Your task to perform on an android device: Open calendar and show me the fourth week of next month Image 0: 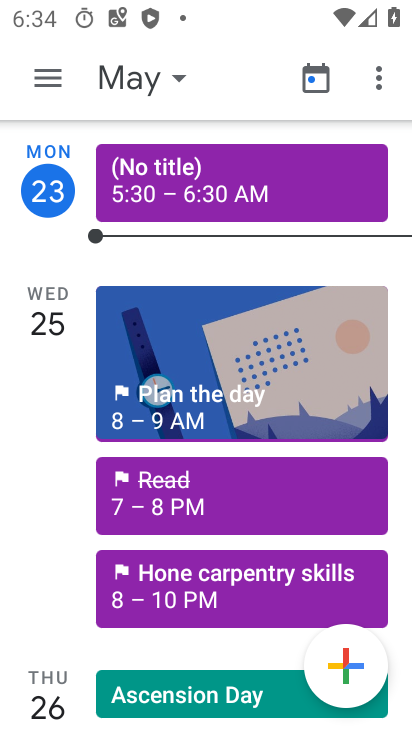
Step 0: press home button
Your task to perform on an android device: Open calendar and show me the fourth week of next month Image 1: 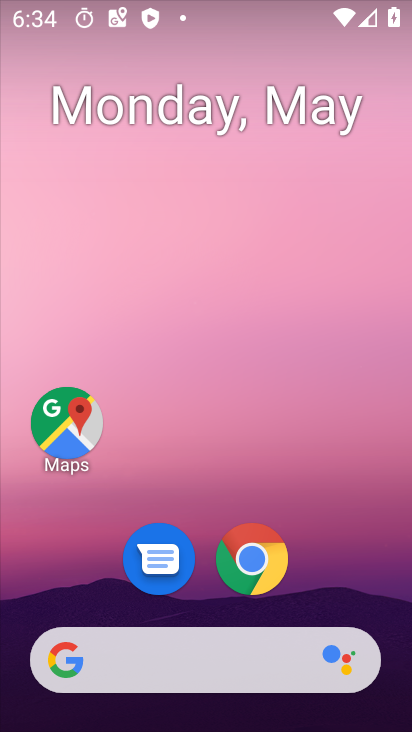
Step 1: drag from (389, 593) to (314, 22)
Your task to perform on an android device: Open calendar and show me the fourth week of next month Image 2: 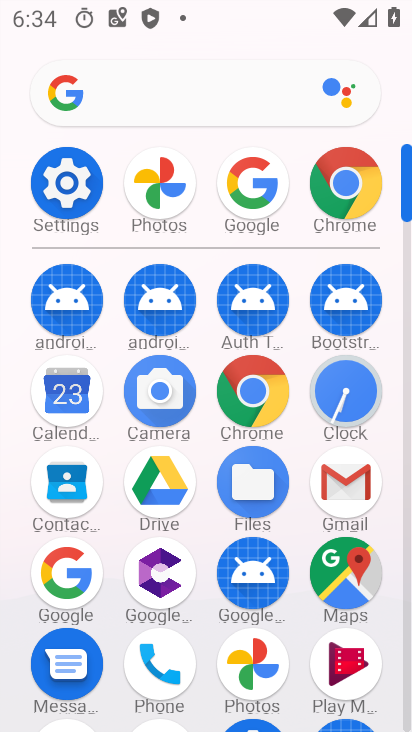
Step 2: click (66, 413)
Your task to perform on an android device: Open calendar and show me the fourth week of next month Image 3: 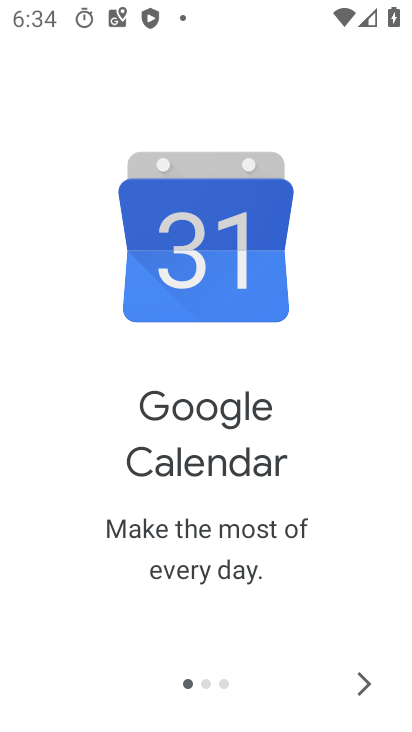
Step 3: click (366, 681)
Your task to perform on an android device: Open calendar and show me the fourth week of next month Image 4: 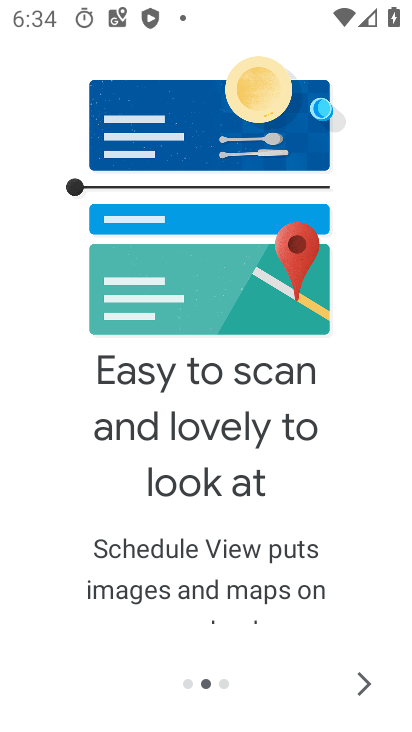
Step 4: click (366, 681)
Your task to perform on an android device: Open calendar and show me the fourth week of next month Image 5: 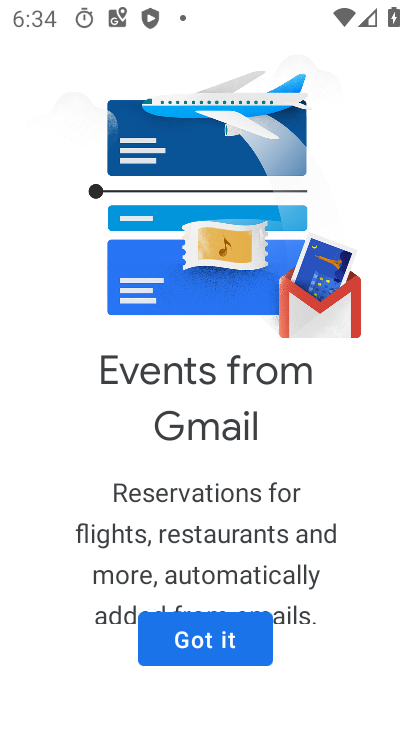
Step 5: click (236, 637)
Your task to perform on an android device: Open calendar and show me the fourth week of next month Image 6: 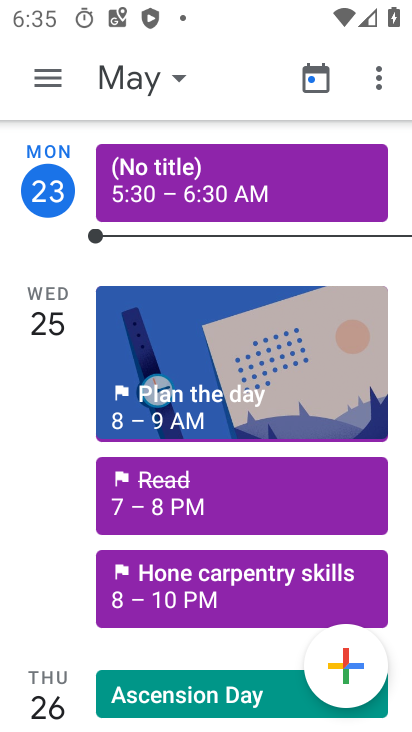
Step 6: click (112, 87)
Your task to perform on an android device: Open calendar and show me the fourth week of next month Image 7: 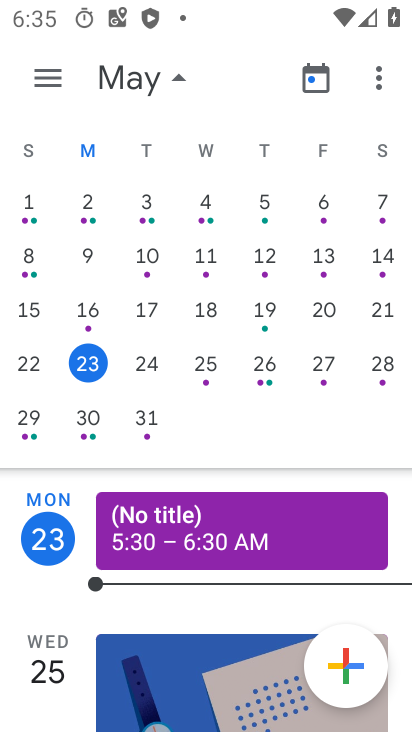
Step 7: drag from (392, 298) to (26, 342)
Your task to perform on an android device: Open calendar and show me the fourth week of next month Image 8: 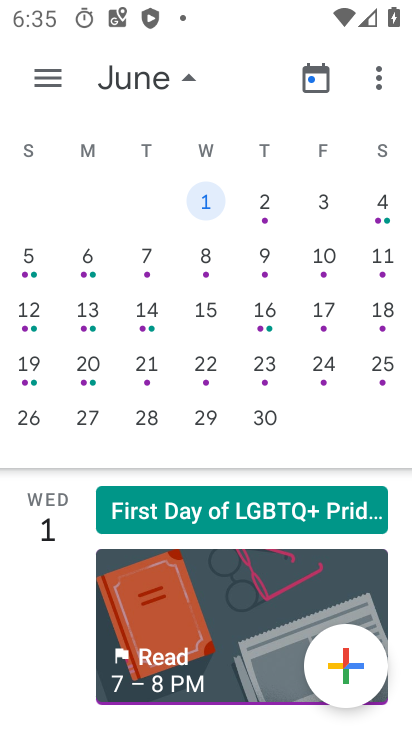
Step 8: click (149, 422)
Your task to perform on an android device: Open calendar and show me the fourth week of next month Image 9: 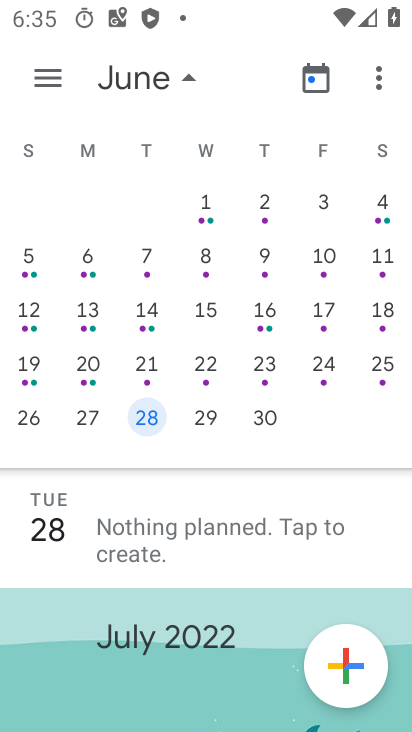
Step 9: task complete